Your task to perform on an android device: move a message to another label in the gmail app Image 0: 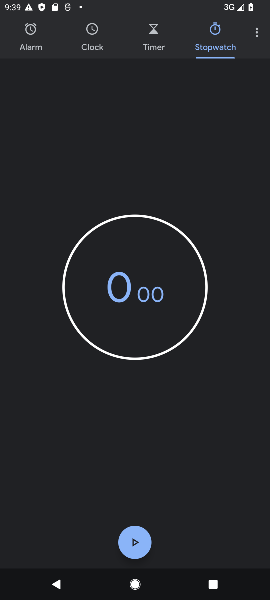
Step 0: press home button
Your task to perform on an android device: move a message to another label in the gmail app Image 1: 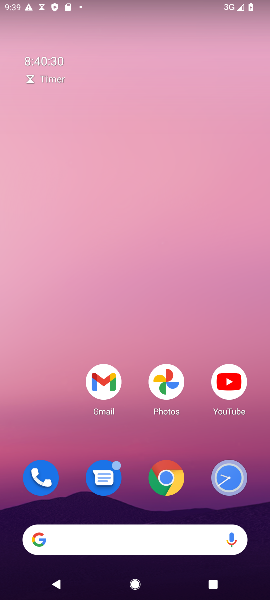
Step 1: click (102, 382)
Your task to perform on an android device: move a message to another label in the gmail app Image 2: 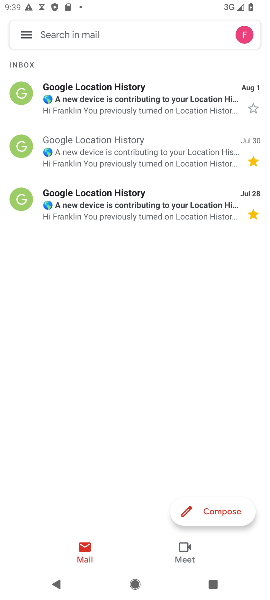
Step 2: click (163, 207)
Your task to perform on an android device: move a message to another label in the gmail app Image 3: 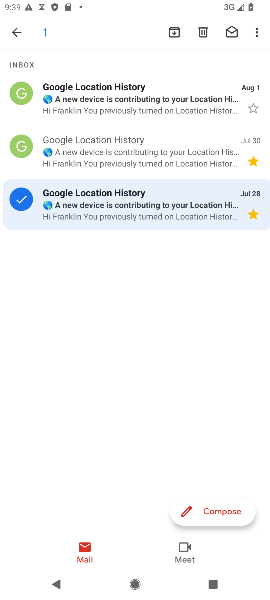
Step 3: click (260, 33)
Your task to perform on an android device: move a message to another label in the gmail app Image 4: 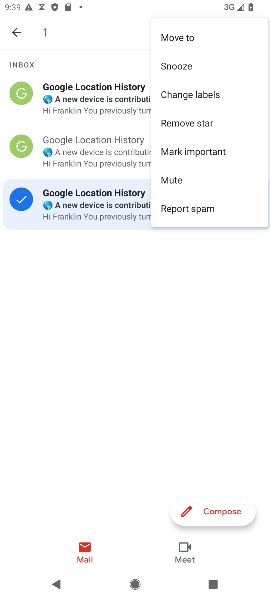
Step 4: click (194, 95)
Your task to perform on an android device: move a message to another label in the gmail app Image 5: 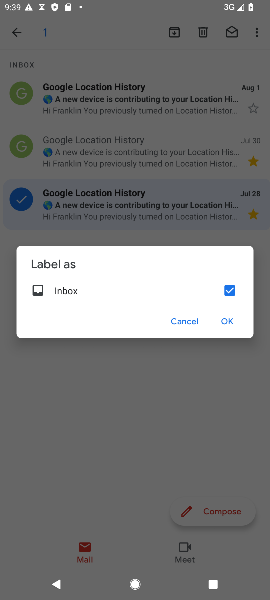
Step 5: click (228, 316)
Your task to perform on an android device: move a message to another label in the gmail app Image 6: 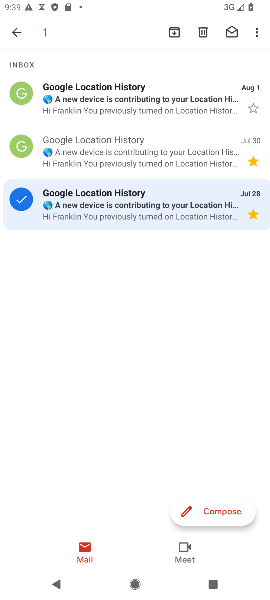
Step 6: task complete